Your task to perform on an android device: Open the Play Movies app and select the watchlist tab. Image 0: 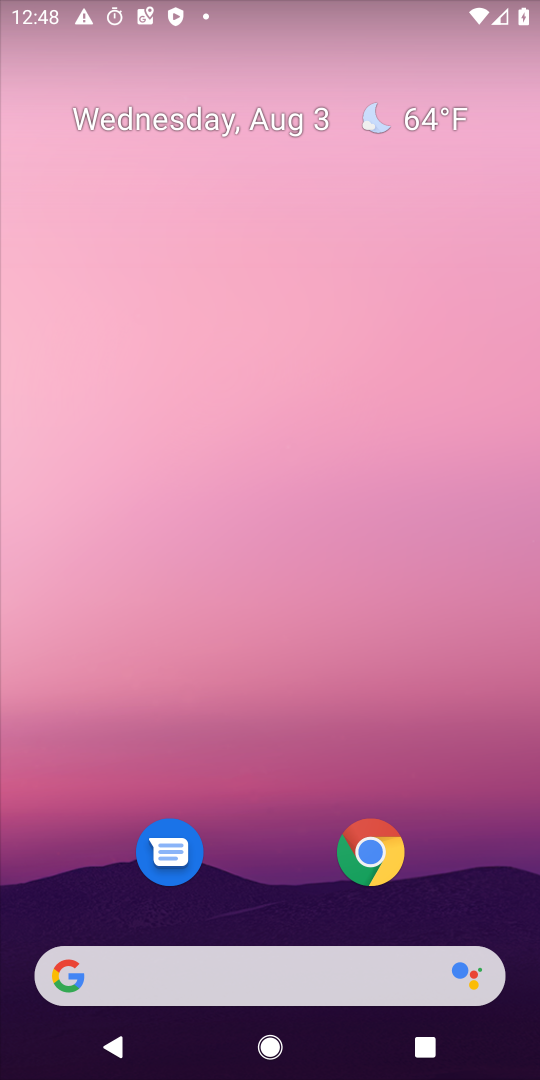
Step 0: drag from (477, 887) to (277, 73)
Your task to perform on an android device: Open the Play Movies app and select the watchlist tab. Image 1: 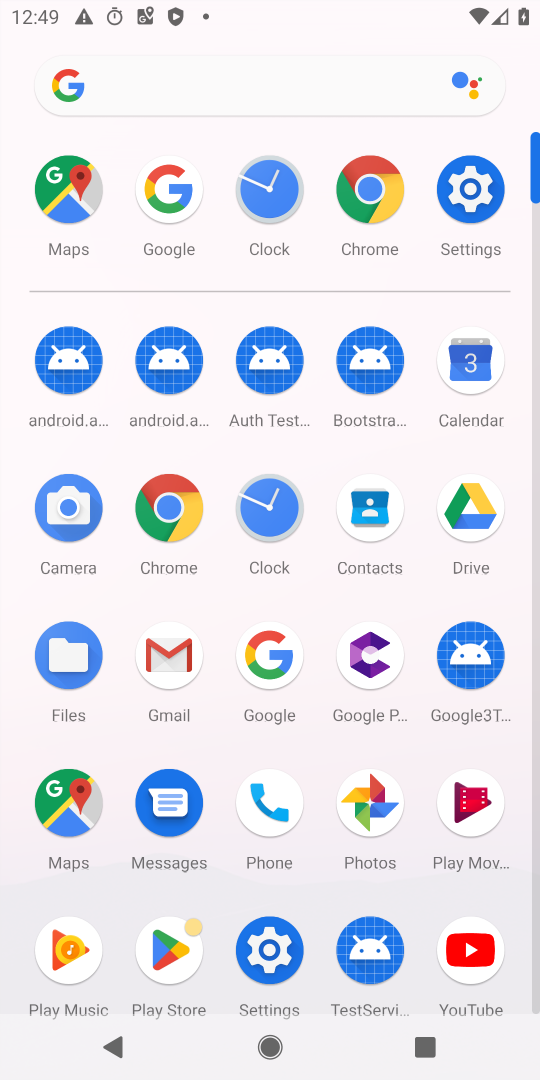
Step 1: click (477, 807)
Your task to perform on an android device: Open the Play Movies app and select the watchlist tab. Image 2: 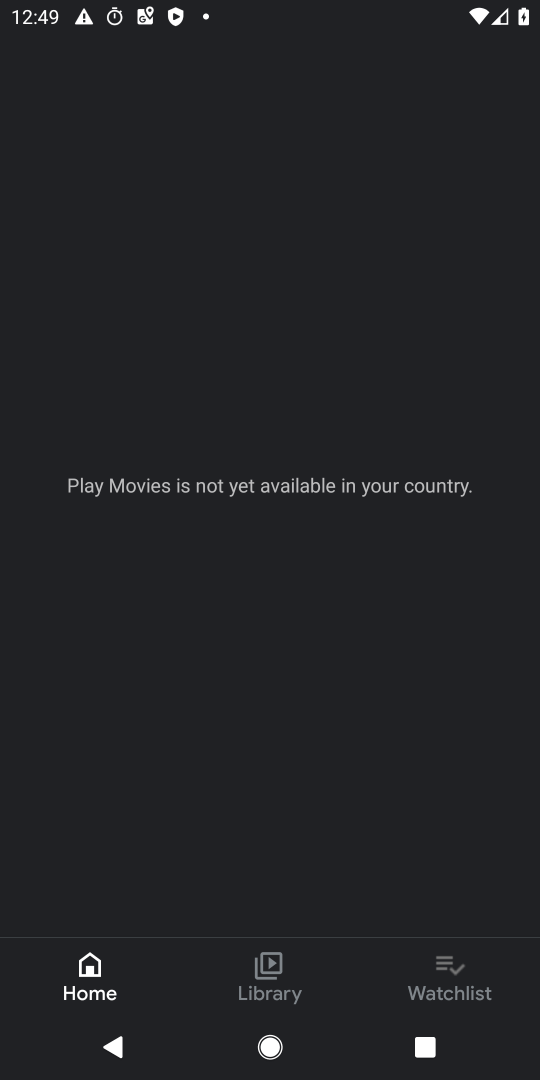
Step 2: click (470, 971)
Your task to perform on an android device: Open the Play Movies app and select the watchlist tab. Image 3: 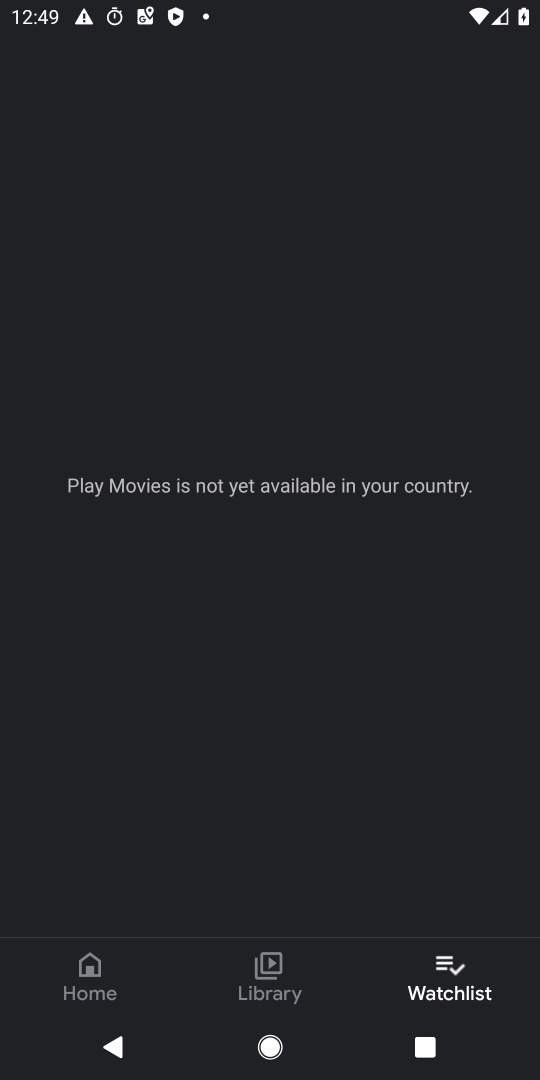
Step 3: task complete